Your task to perform on an android device: Open notification settings Image 0: 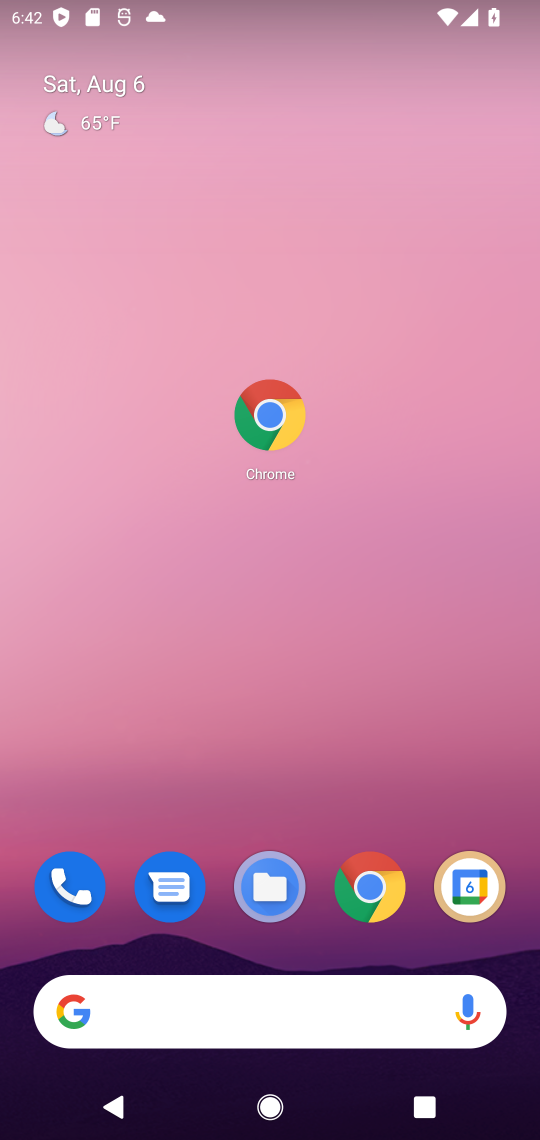
Step 0: drag from (282, 319) to (350, 403)
Your task to perform on an android device: Open notification settings Image 1: 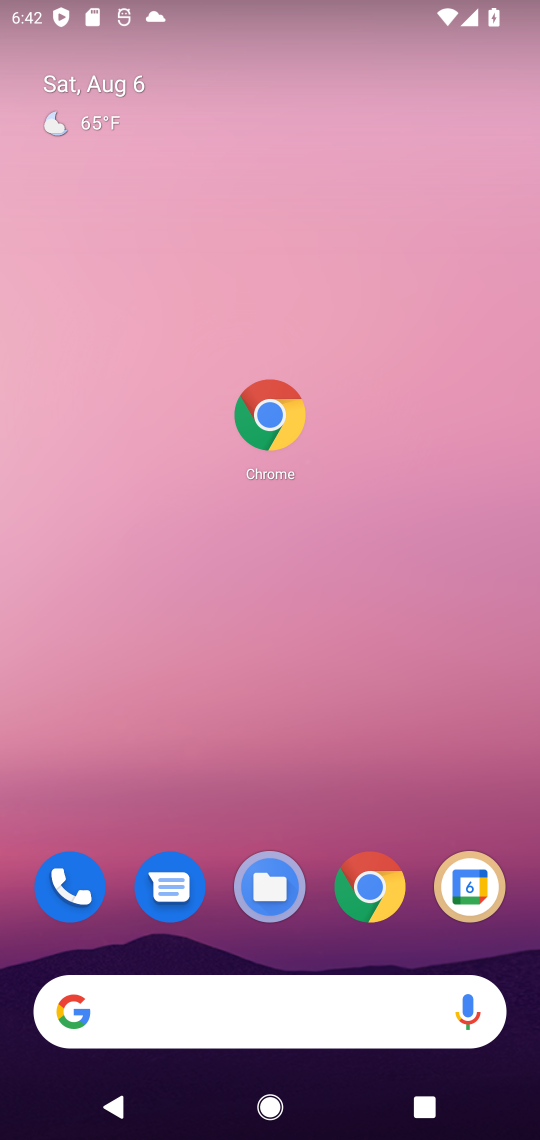
Step 1: drag from (315, 720) to (264, 250)
Your task to perform on an android device: Open notification settings Image 2: 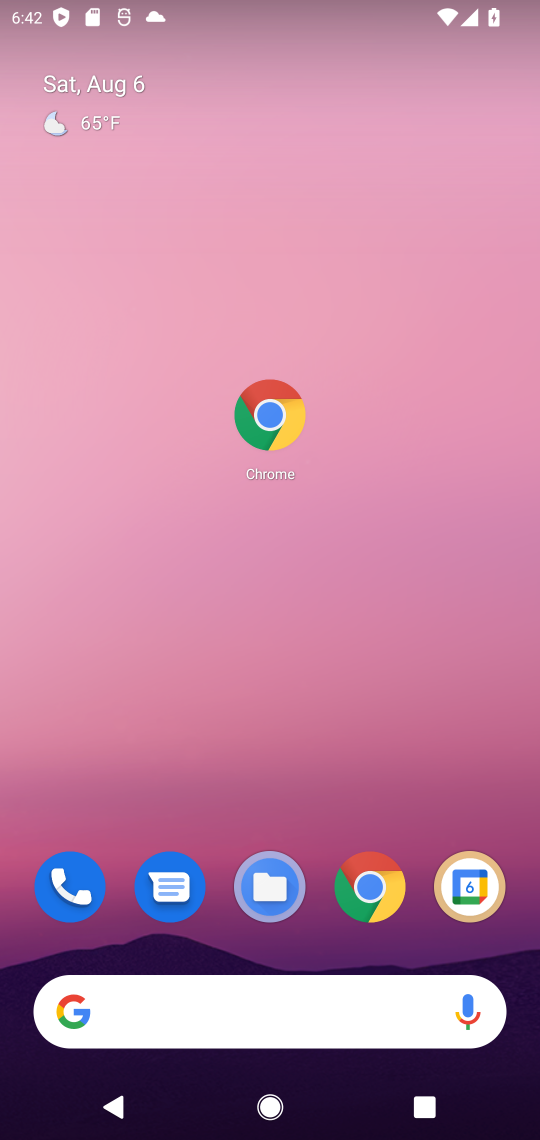
Step 2: drag from (272, 526) to (259, 442)
Your task to perform on an android device: Open notification settings Image 3: 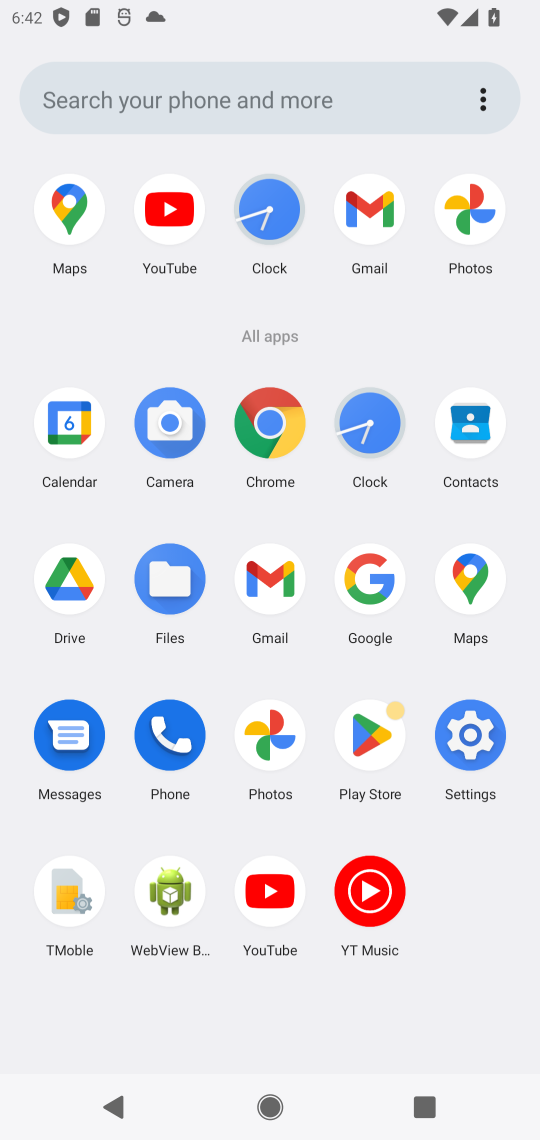
Step 3: drag from (232, 534) to (221, 432)
Your task to perform on an android device: Open notification settings Image 4: 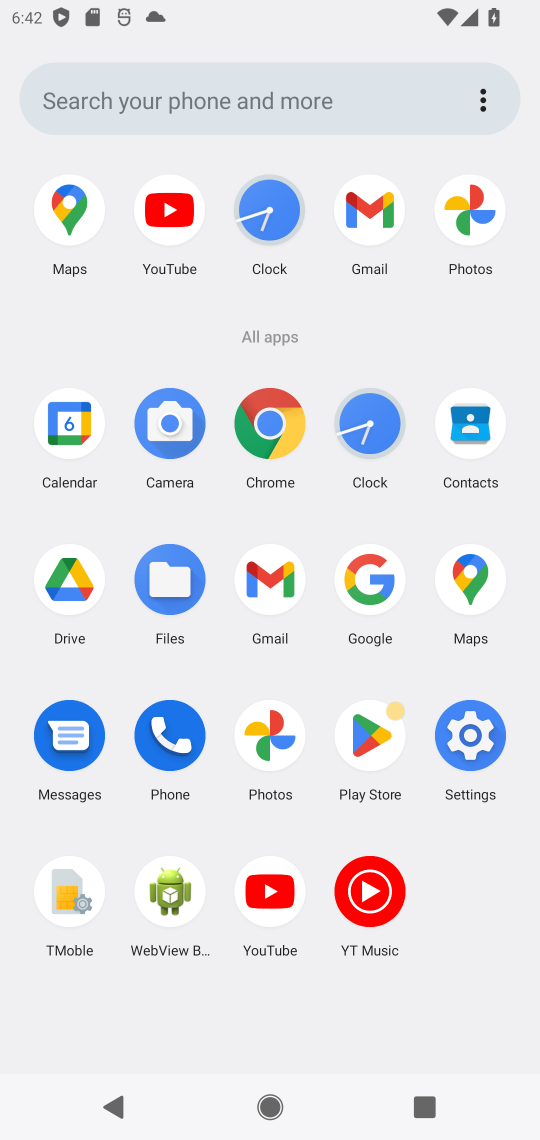
Step 4: click (462, 732)
Your task to perform on an android device: Open notification settings Image 5: 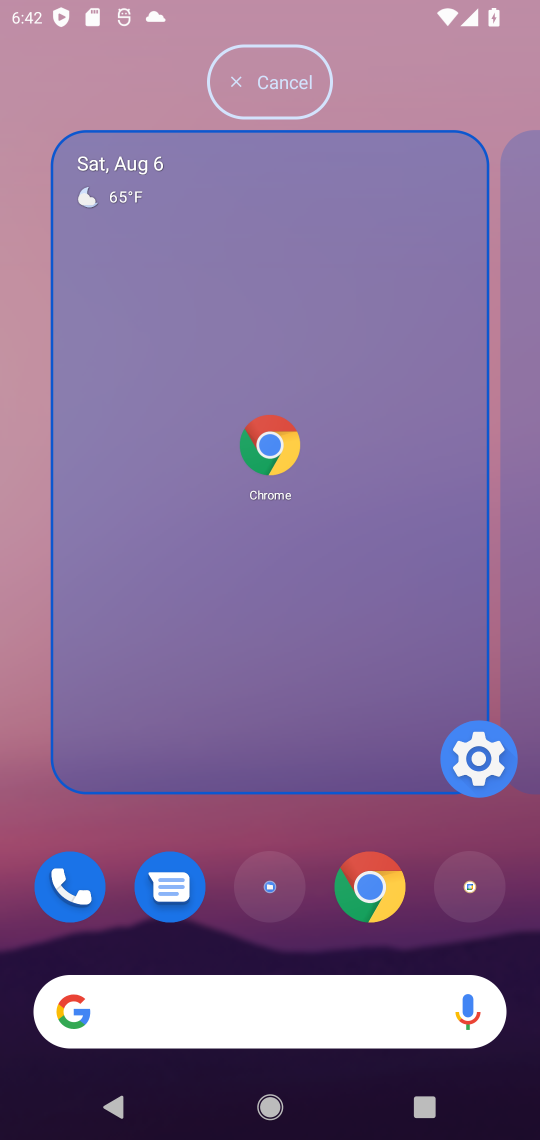
Step 5: click (473, 759)
Your task to perform on an android device: Open notification settings Image 6: 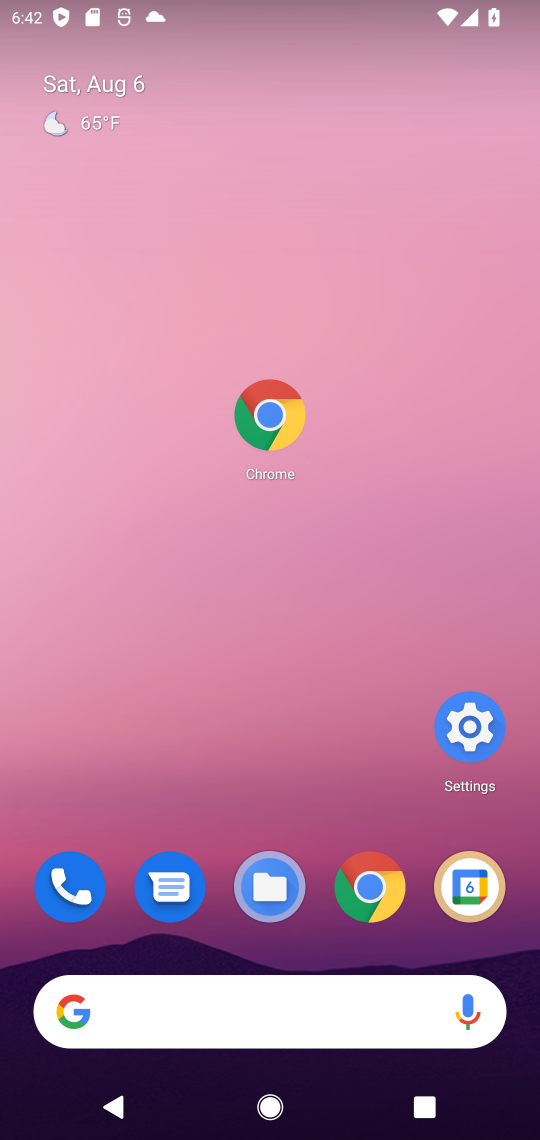
Step 6: drag from (249, 487) to (193, 101)
Your task to perform on an android device: Open notification settings Image 7: 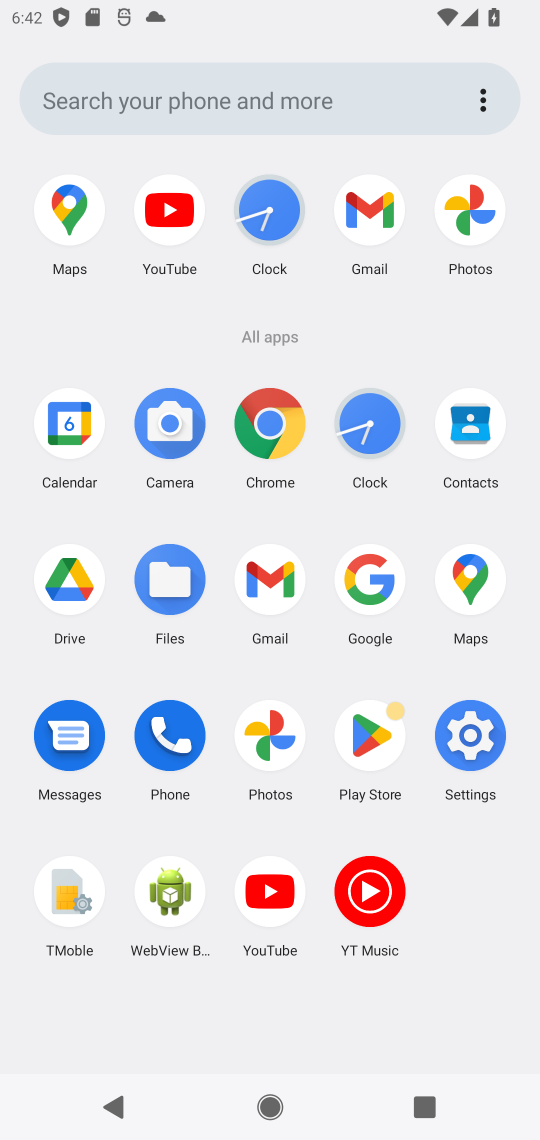
Step 7: click (477, 736)
Your task to perform on an android device: Open notification settings Image 8: 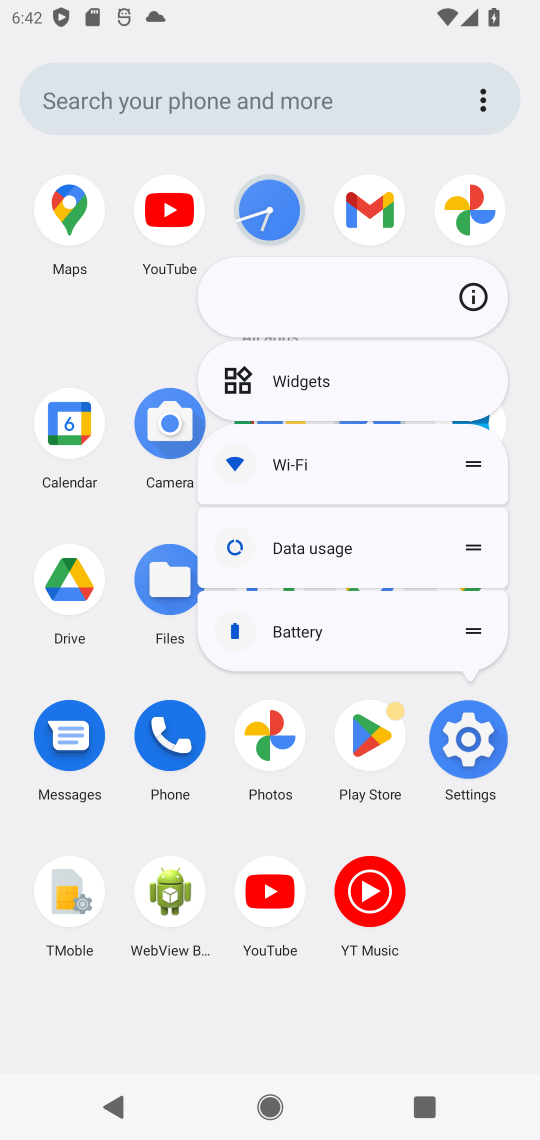
Step 8: click (473, 742)
Your task to perform on an android device: Open notification settings Image 9: 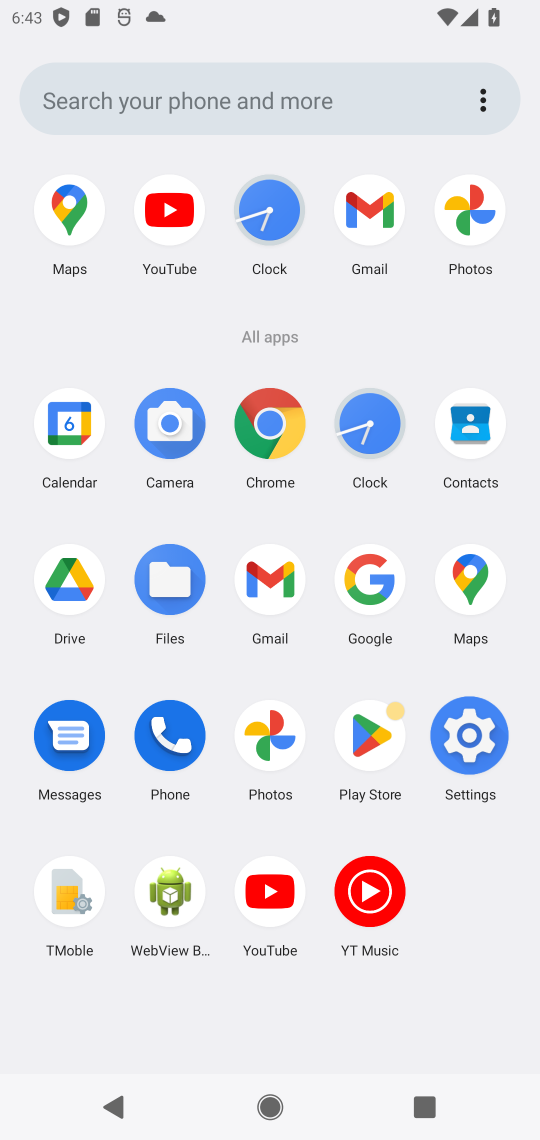
Step 9: click (476, 747)
Your task to perform on an android device: Open notification settings Image 10: 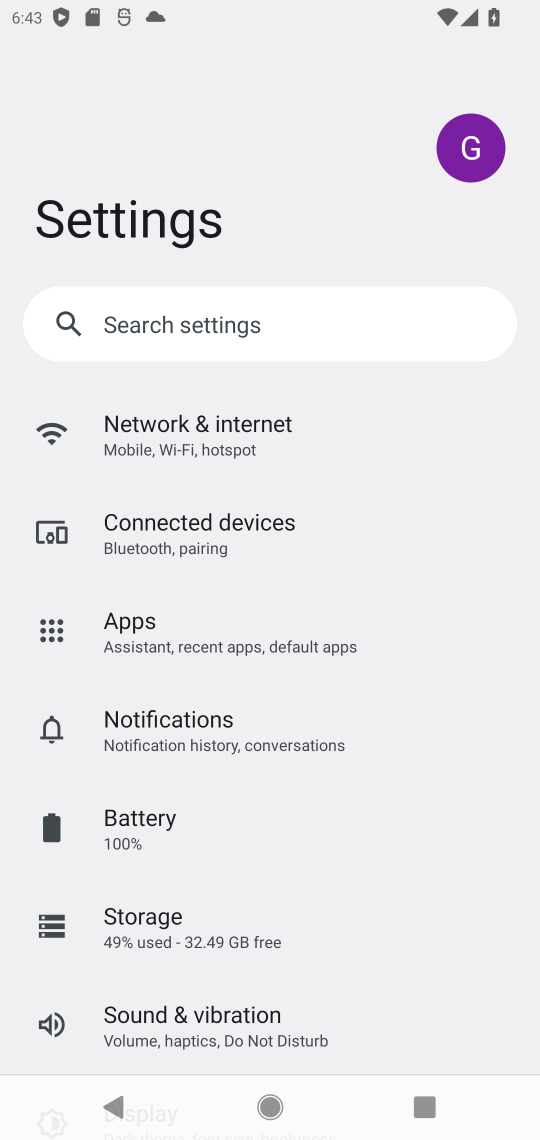
Step 10: click (156, 754)
Your task to perform on an android device: Open notification settings Image 11: 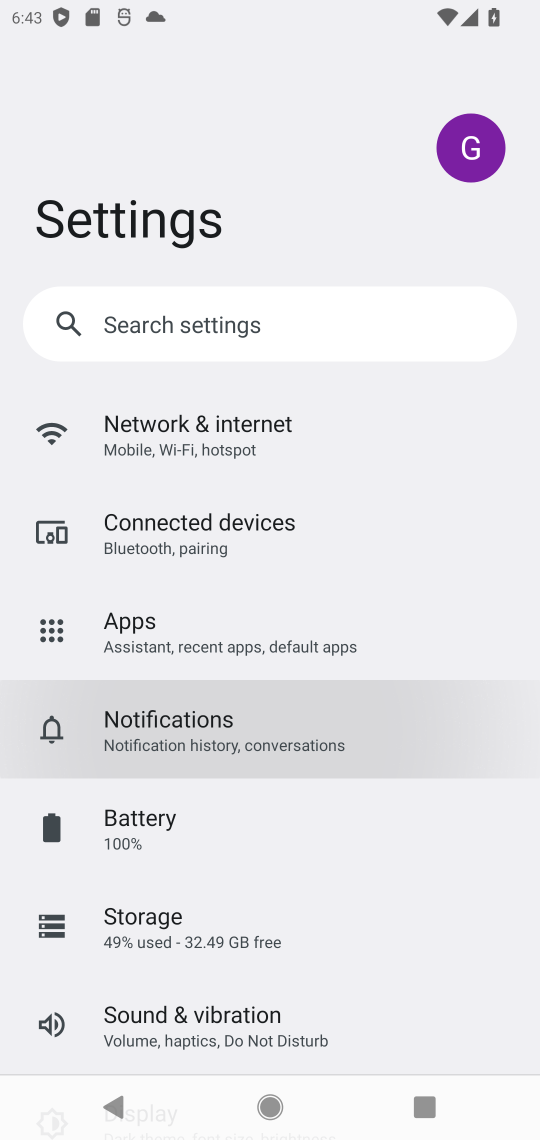
Step 11: click (156, 759)
Your task to perform on an android device: Open notification settings Image 12: 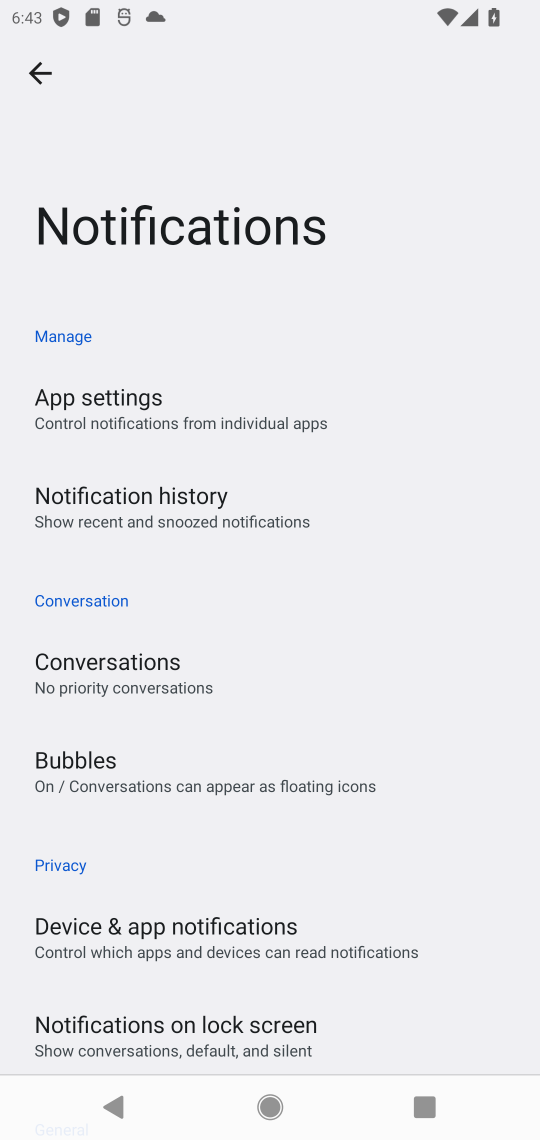
Step 12: task complete